Your task to perform on an android device: turn on wifi Image 0: 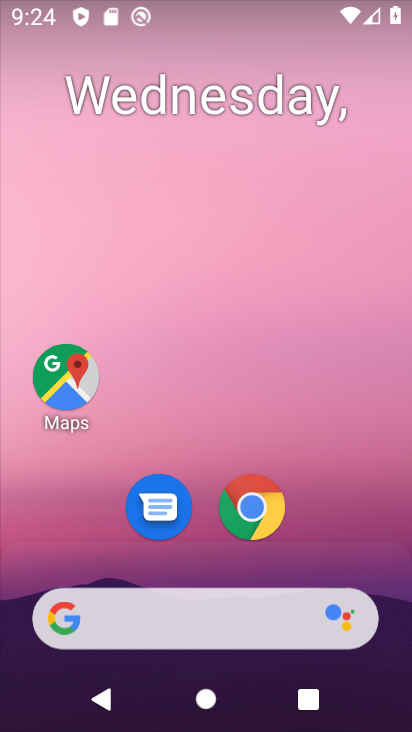
Step 0: drag from (177, 598) to (195, 282)
Your task to perform on an android device: turn on wifi Image 1: 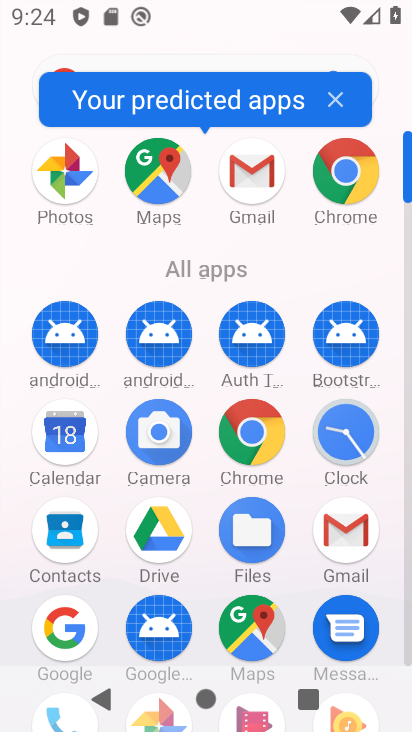
Step 1: drag from (215, 426) to (215, 284)
Your task to perform on an android device: turn on wifi Image 2: 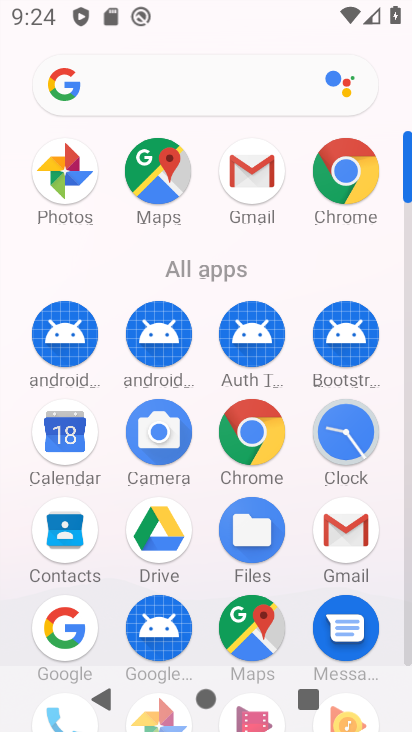
Step 2: drag from (196, 675) to (179, 381)
Your task to perform on an android device: turn on wifi Image 3: 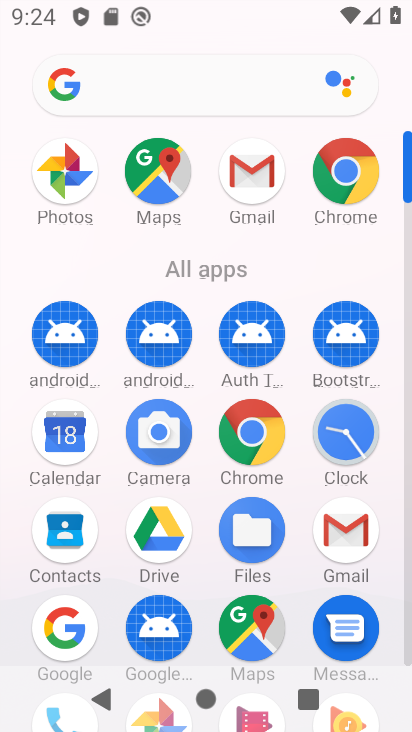
Step 3: drag from (204, 643) to (204, 318)
Your task to perform on an android device: turn on wifi Image 4: 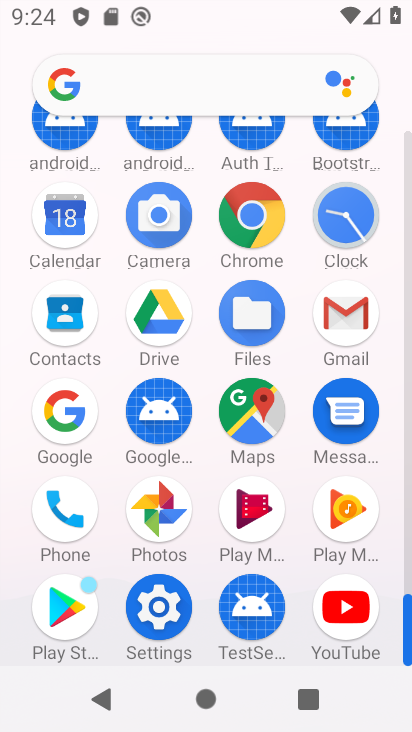
Step 4: click (159, 611)
Your task to perform on an android device: turn on wifi Image 5: 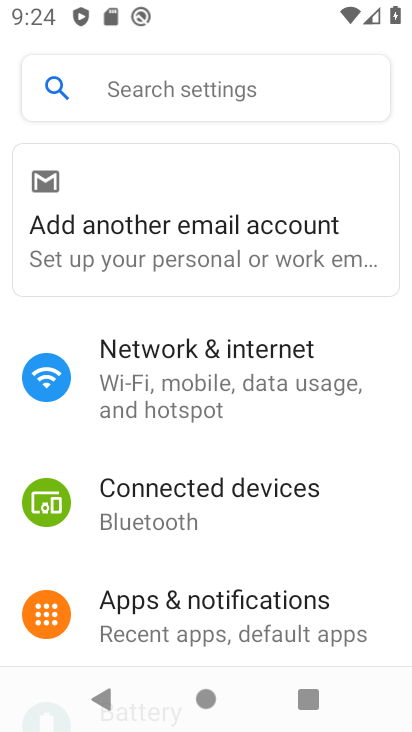
Step 5: click (200, 366)
Your task to perform on an android device: turn on wifi Image 6: 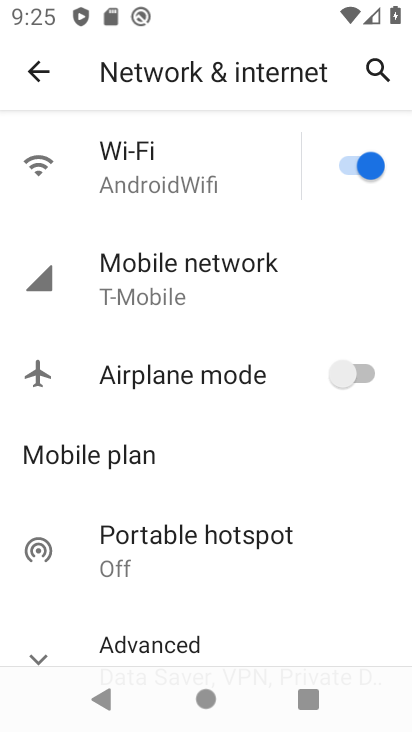
Step 6: task complete